Your task to perform on an android device: Is it going to rain today? Image 0: 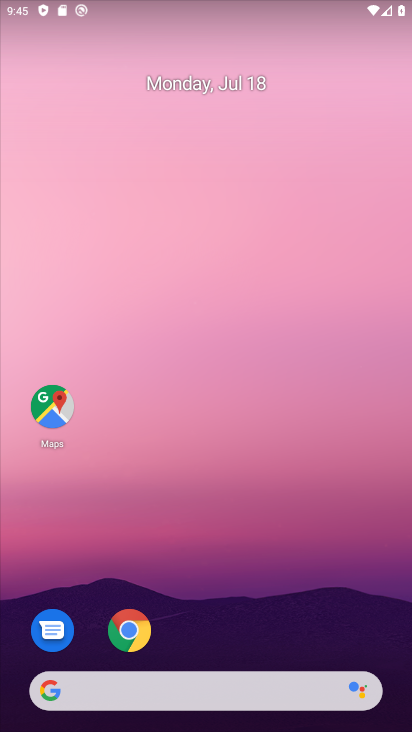
Step 0: click (31, 726)
Your task to perform on an android device: Is it going to rain today? Image 1: 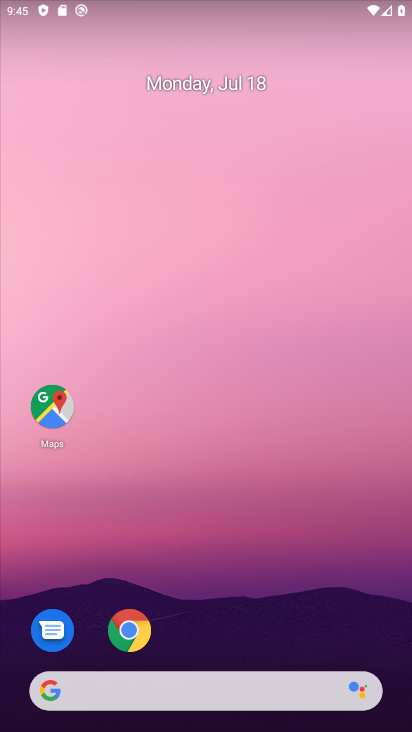
Step 1: click (135, 622)
Your task to perform on an android device: Is it going to rain today? Image 2: 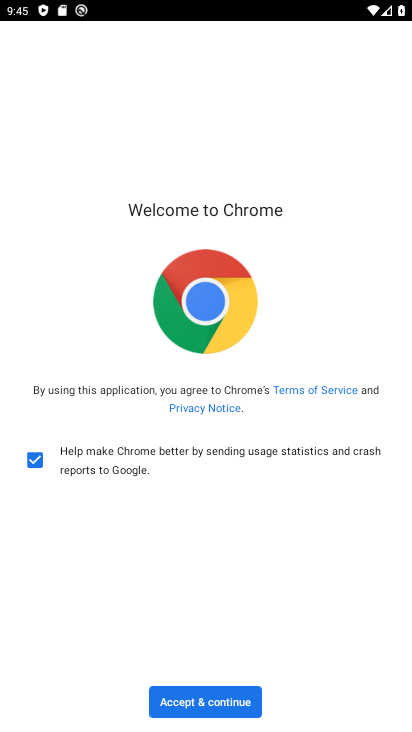
Step 2: click (195, 710)
Your task to perform on an android device: Is it going to rain today? Image 3: 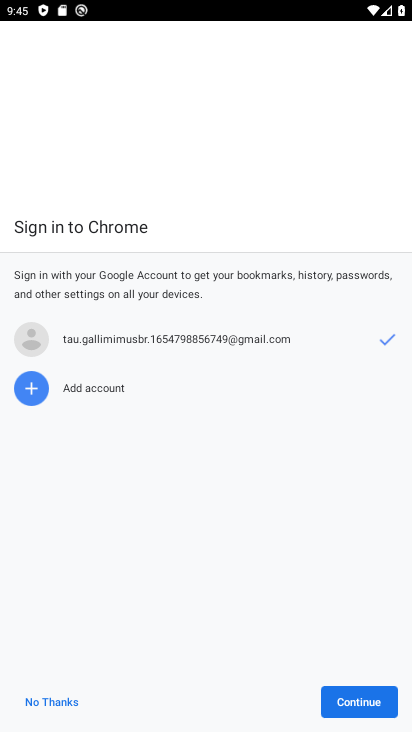
Step 3: click (380, 709)
Your task to perform on an android device: Is it going to rain today? Image 4: 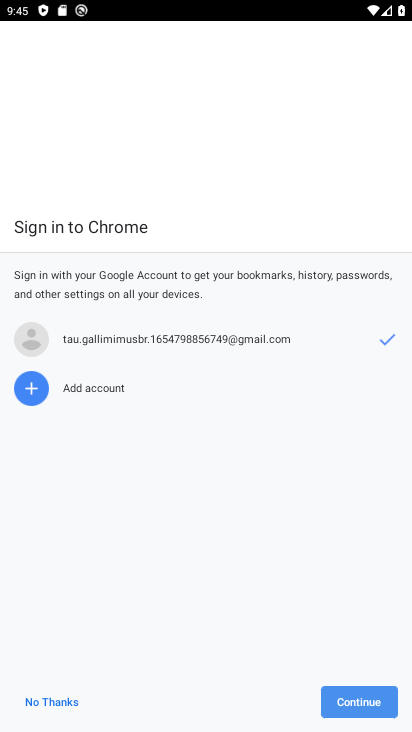
Step 4: click (380, 709)
Your task to perform on an android device: Is it going to rain today? Image 5: 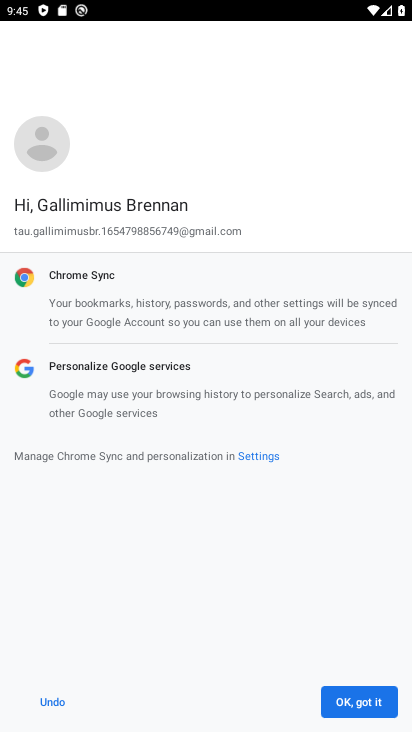
Step 5: click (380, 709)
Your task to perform on an android device: Is it going to rain today? Image 6: 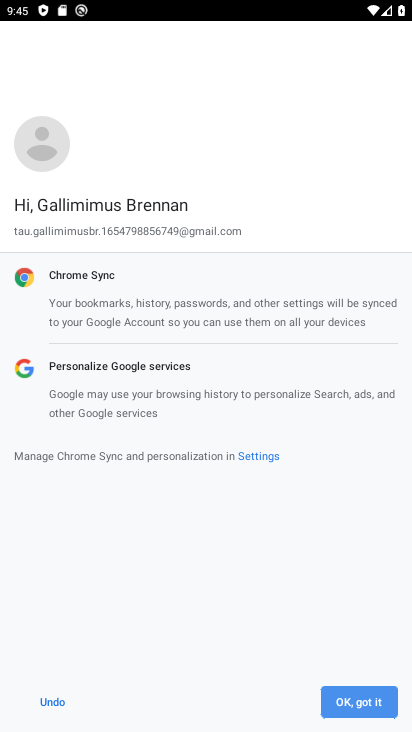
Step 6: click (380, 709)
Your task to perform on an android device: Is it going to rain today? Image 7: 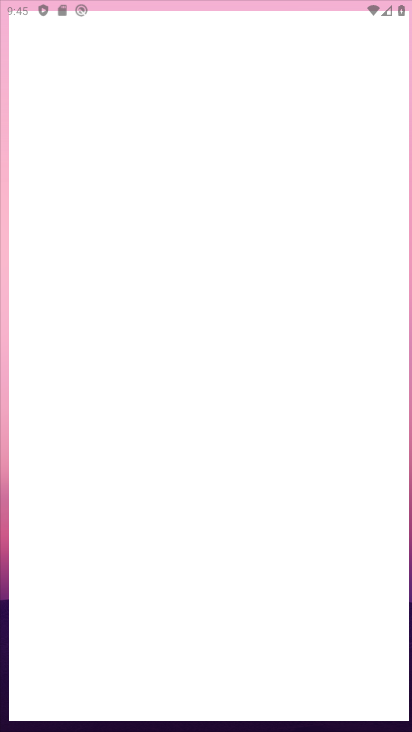
Step 7: click (380, 709)
Your task to perform on an android device: Is it going to rain today? Image 8: 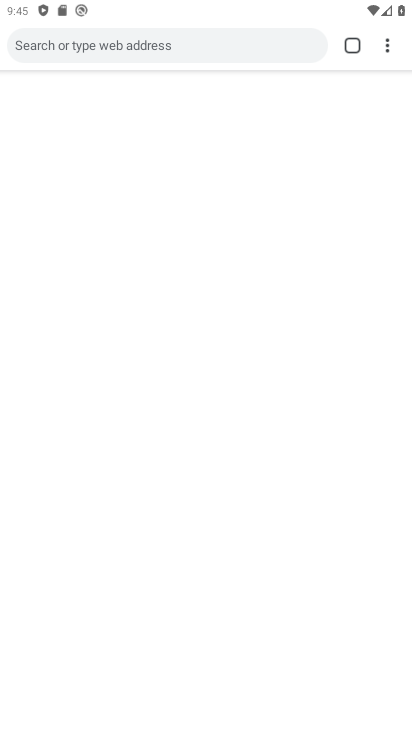
Step 8: click (380, 709)
Your task to perform on an android device: Is it going to rain today? Image 9: 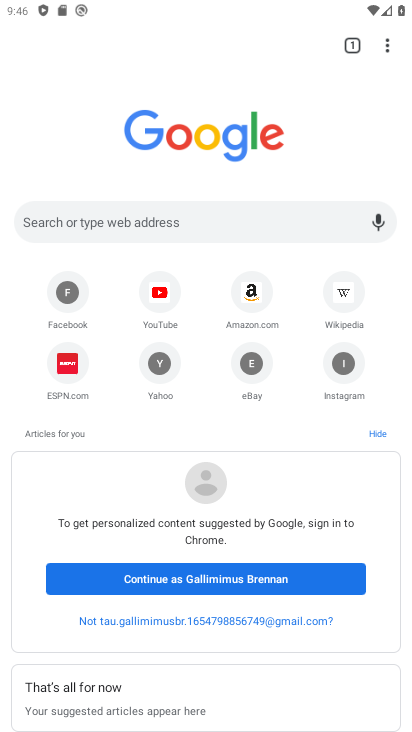
Step 9: click (287, 55)
Your task to perform on an android device: Is it going to rain today? Image 10: 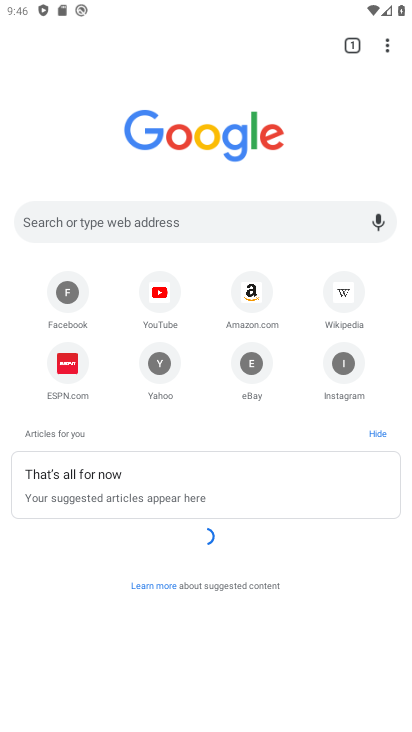
Step 10: click (275, 222)
Your task to perform on an android device: Is it going to rain today? Image 11: 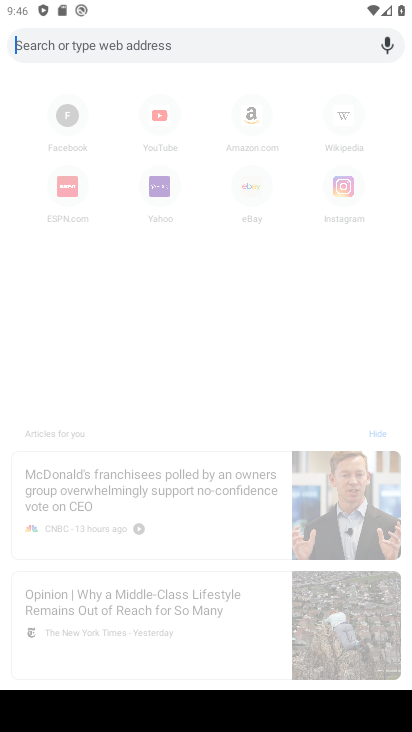
Step 11: type "Is it going to rain today?"
Your task to perform on an android device: Is it going to rain today? Image 12: 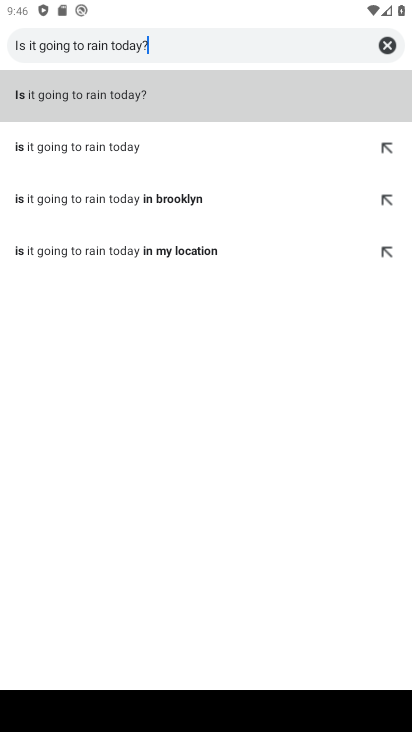
Step 12: type ""
Your task to perform on an android device: Is it going to rain today? Image 13: 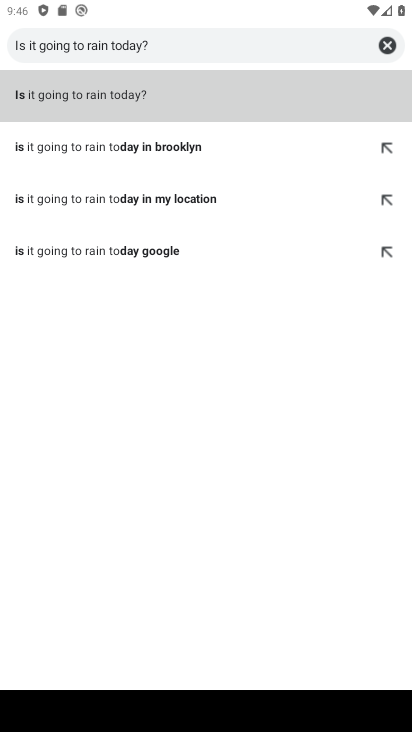
Step 13: click (114, 104)
Your task to perform on an android device: Is it going to rain today? Image 14: 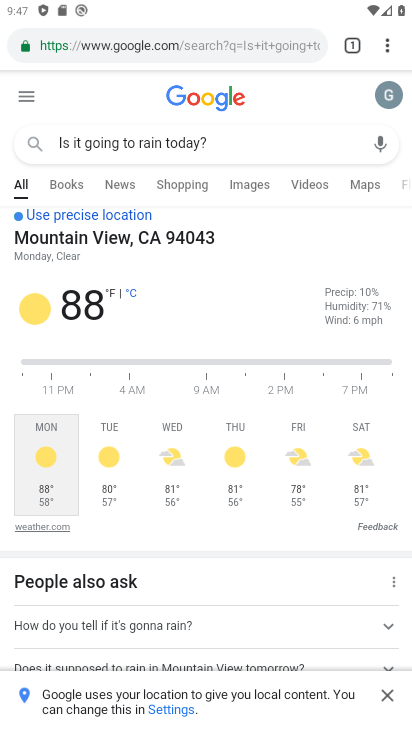
Step 14: task complete